Your task to perform on an android device: Go to privacy settings Image 0: 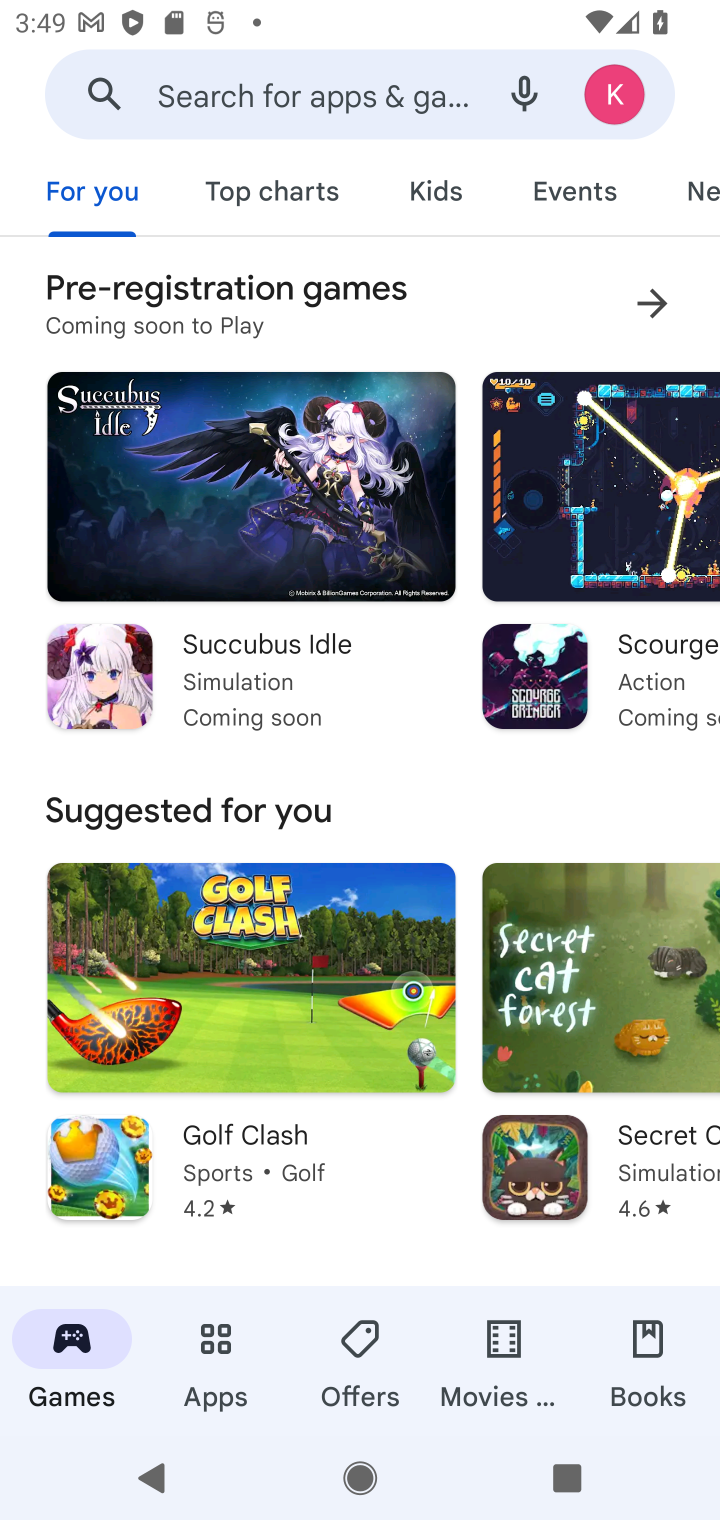
Step 0: press home button
Your task to perform on an android device: Go to privacy settings Image 1: 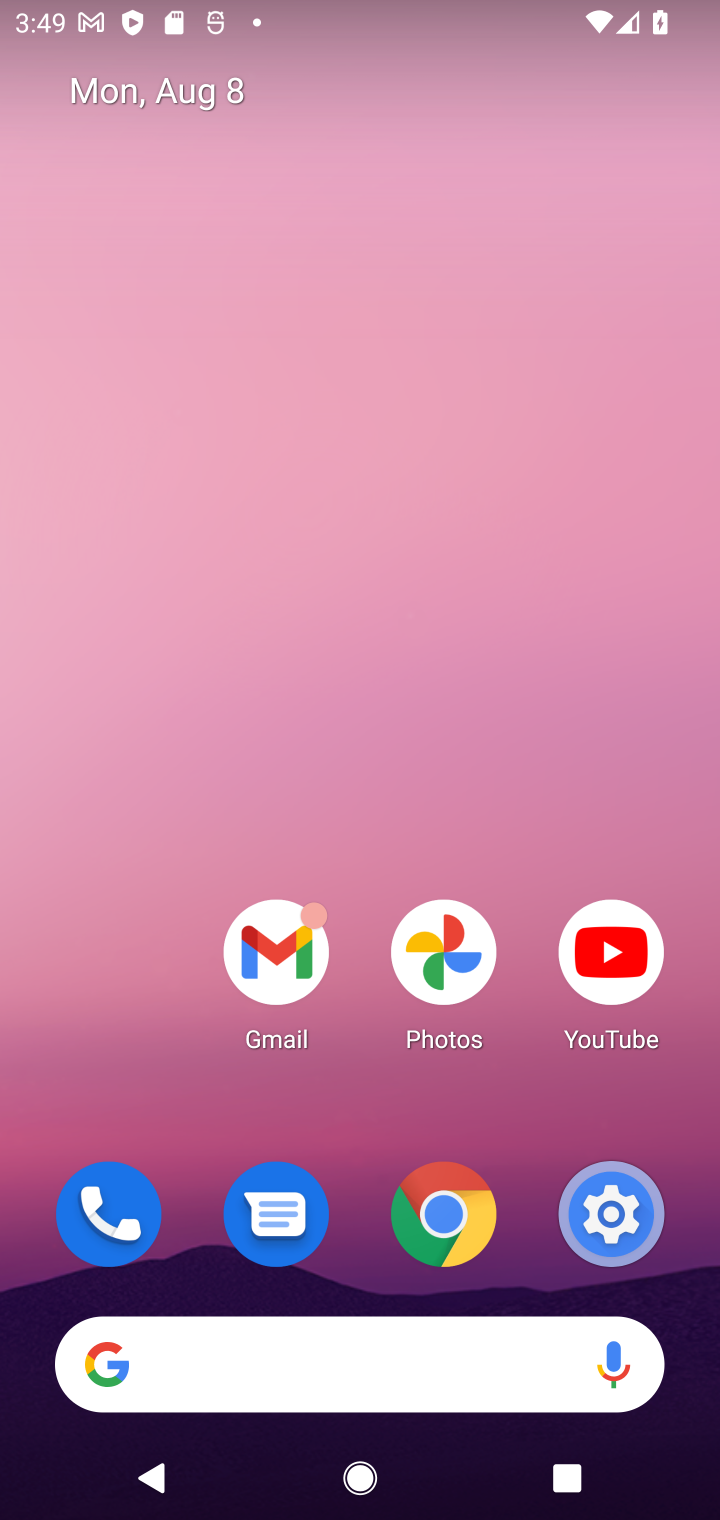
Step 1: drag from (371, 1297) to (454, 112)
Your task to perform on an android device: Go to privacy settings Image 2: 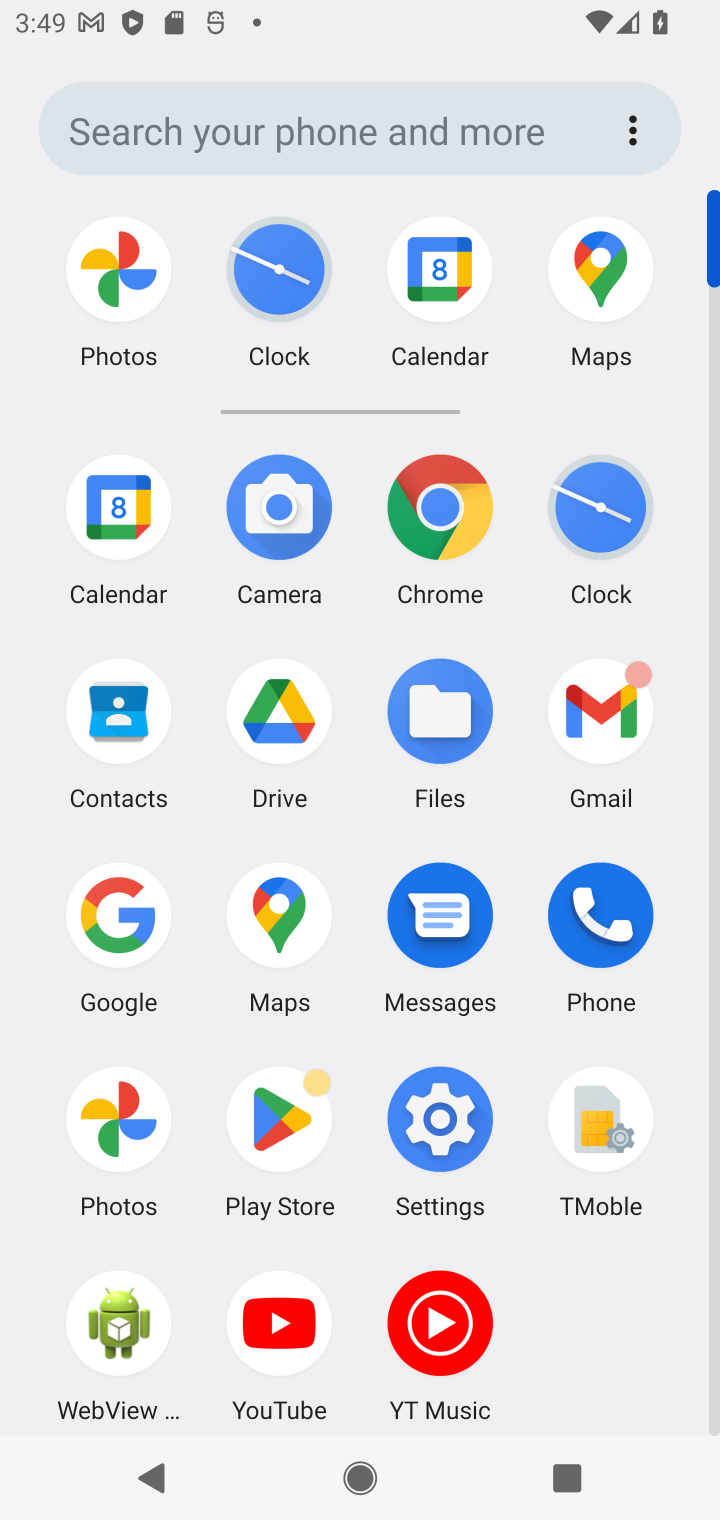
Step 2: click (462, 1114)
Your task to perform on an android device: Go to privacy settings Image 3: 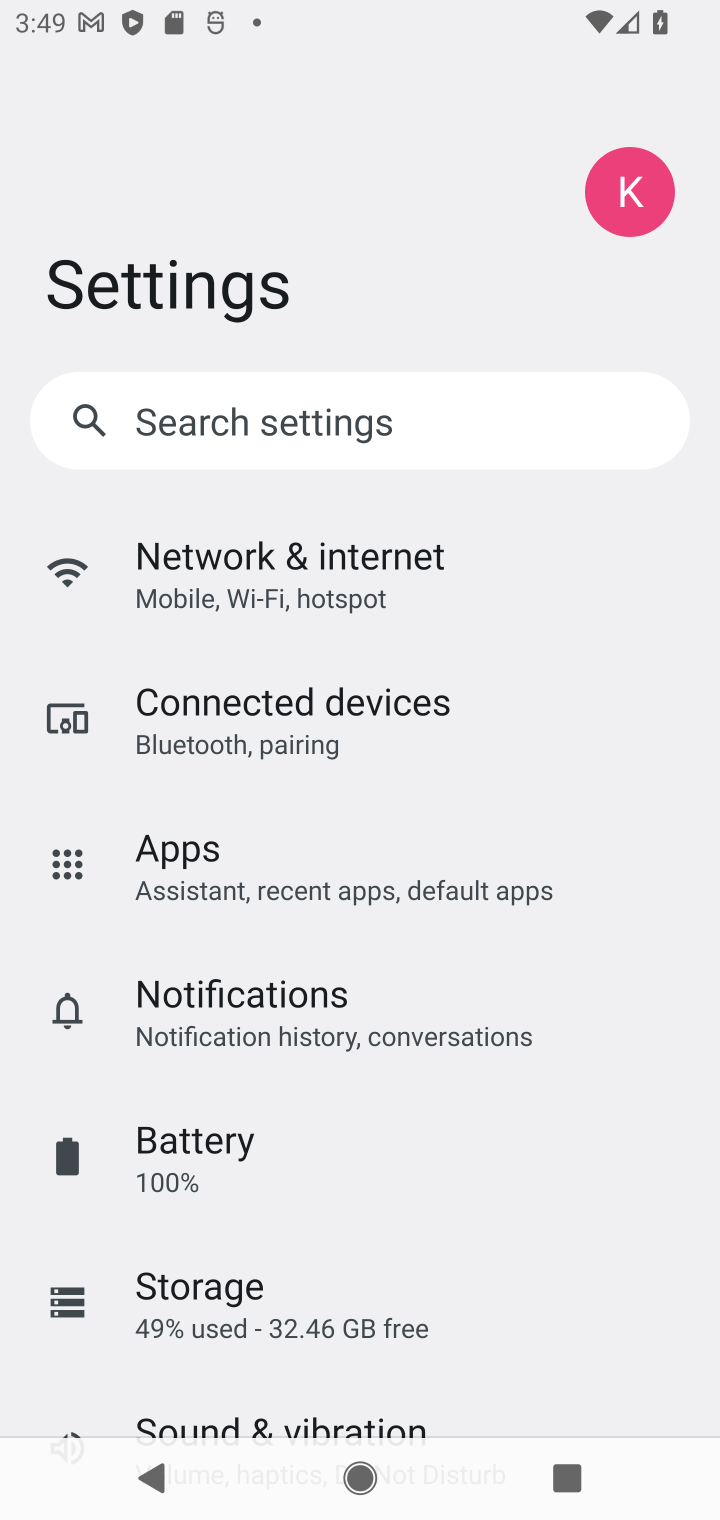
Step 3: drag from (209, 1157) to (202, 549)
Your task to perform on an android device: Go to privacy settings Image 4: 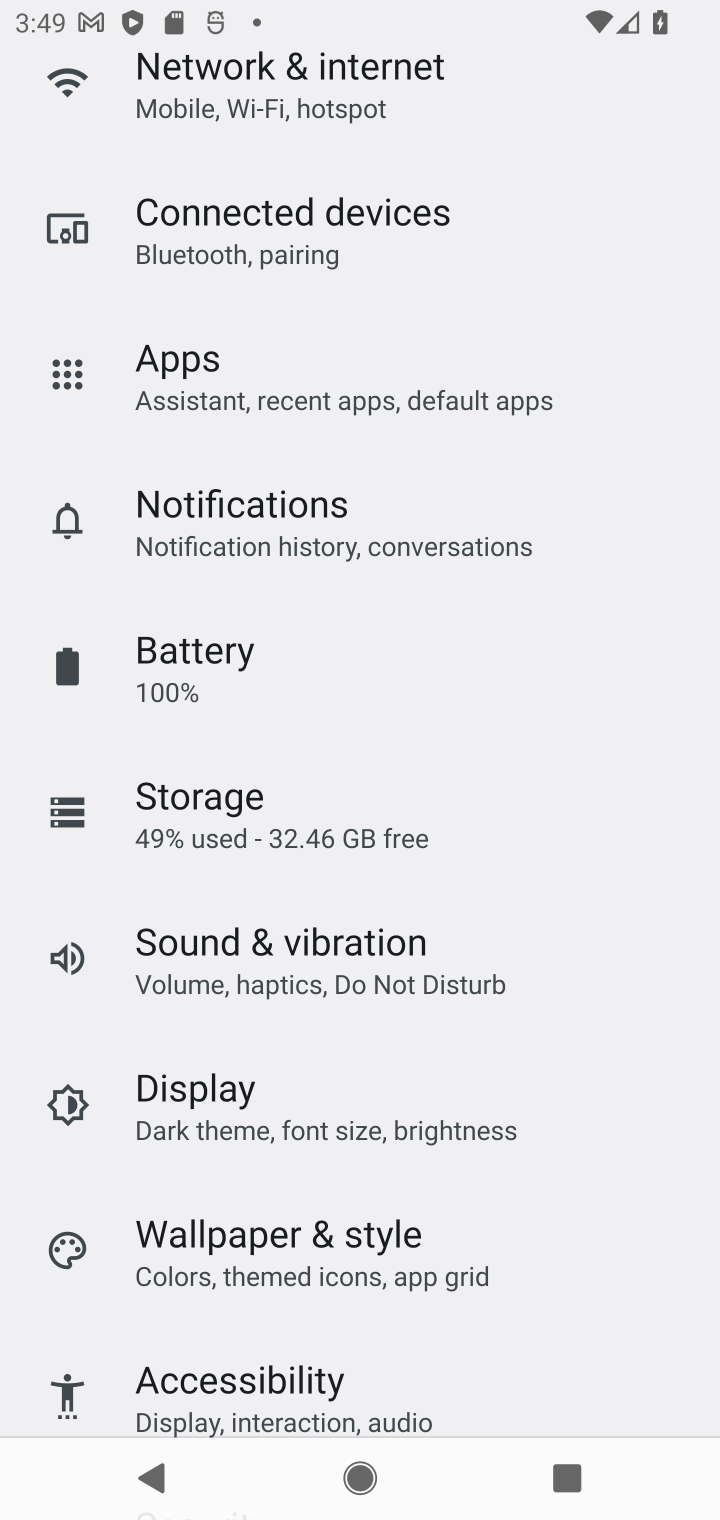
Step 4: drag from (169, 1275) to (178, 704)
Your task to perform on an android device: Go to privacy settings Image 5: 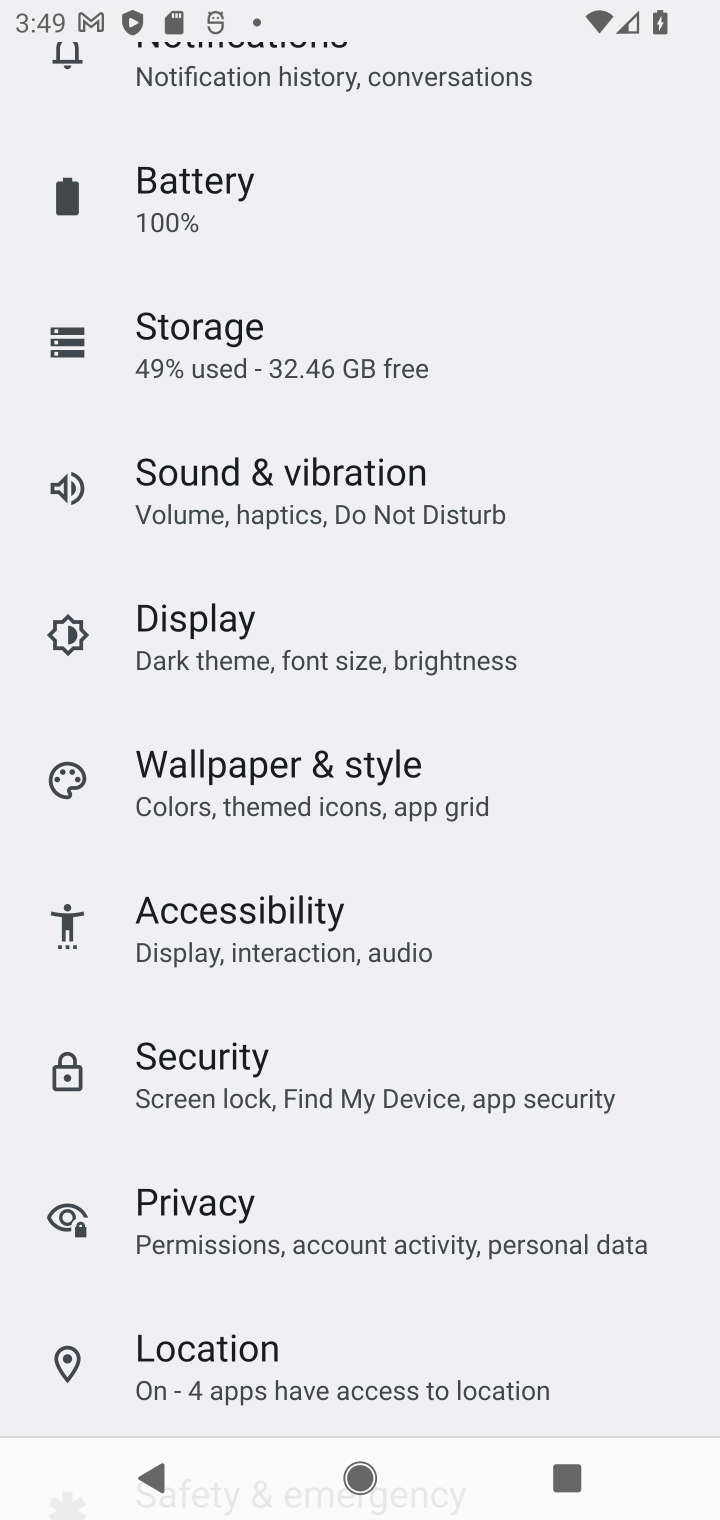
Step 5: click (219, 1226)
Your task to perform on an android device: Go to privacy settings Image 6: 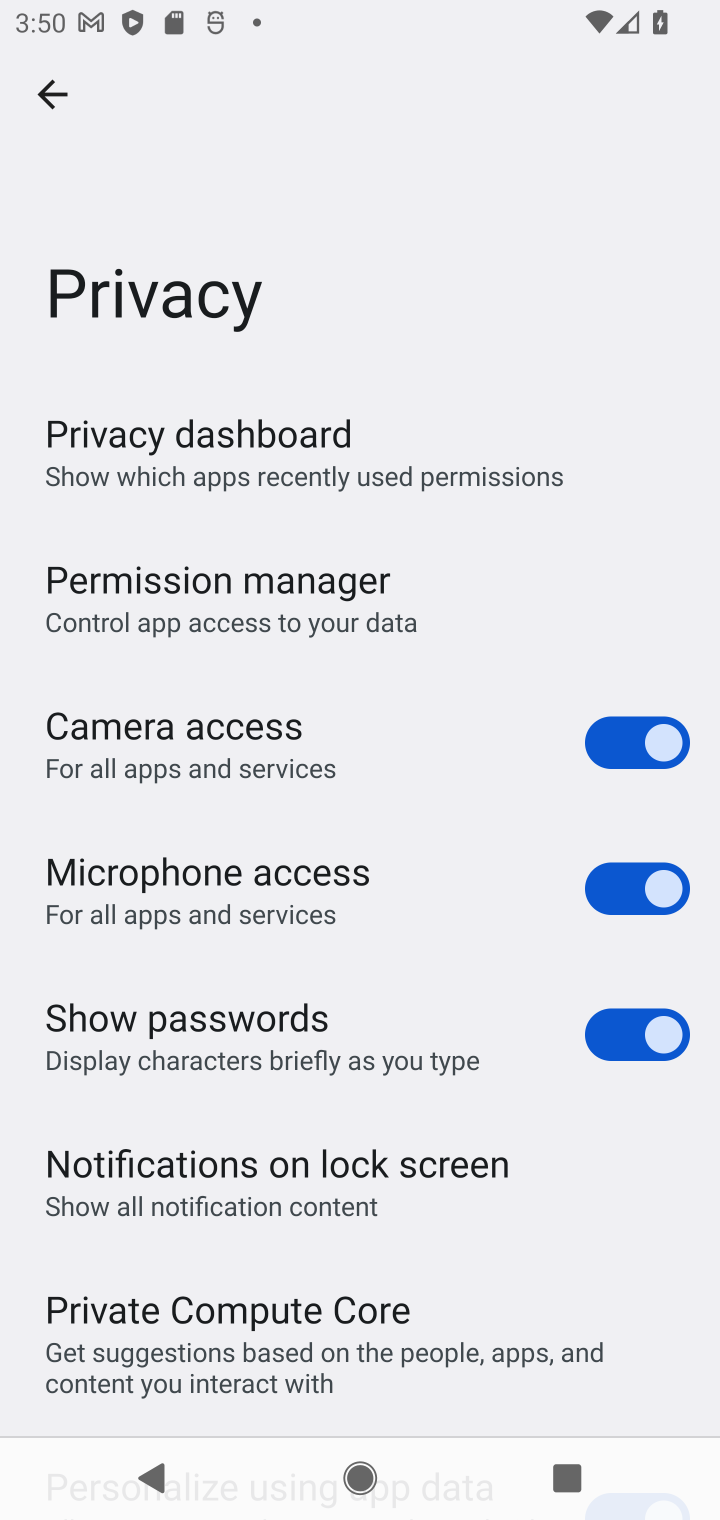
Step 6: task complete